Your task to perform on an android device: What is the news today? Image 0: 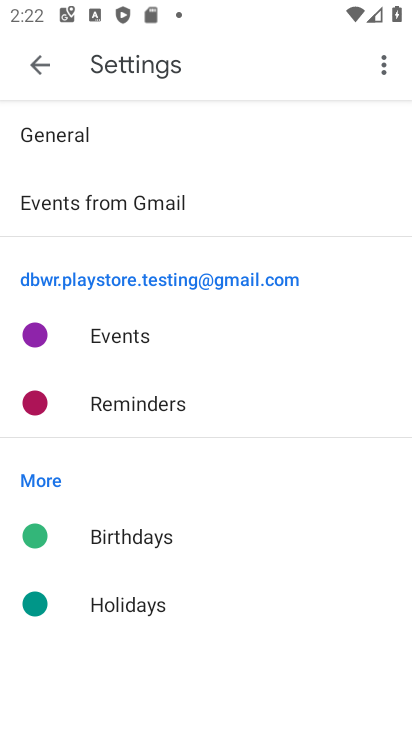
Step 0: drag from (206, 636) to (312, 170)
Your task to perform on an android device: What is the news today? Image 1: 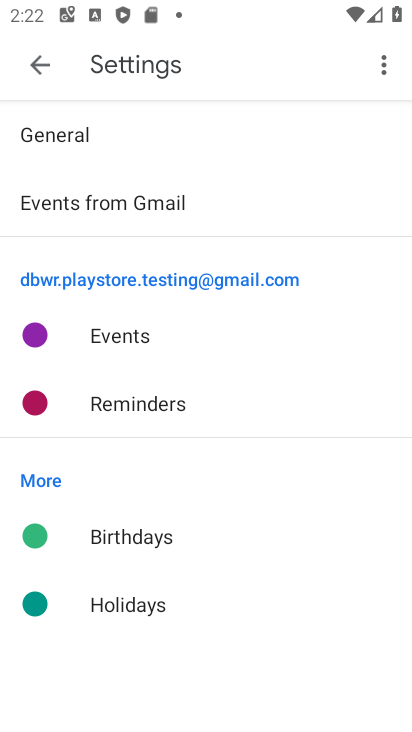
Step 1: drag from (303, 176) to (331, 704)
Your task to perform on an android device: What is the news today? Image 2: 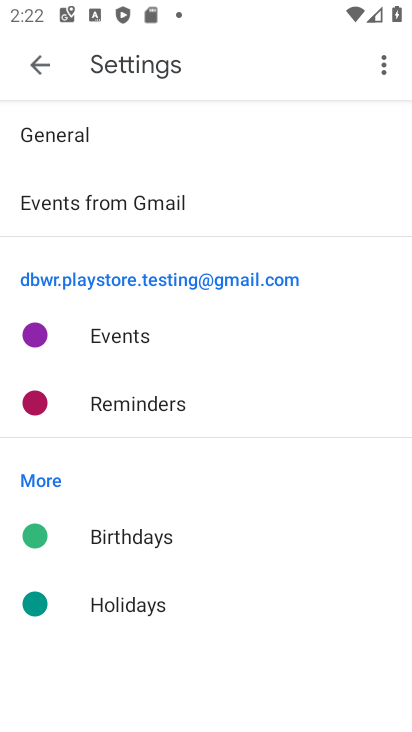
Step 2: press back button
Your task to perform on an android device: What is the news today? Image 3: 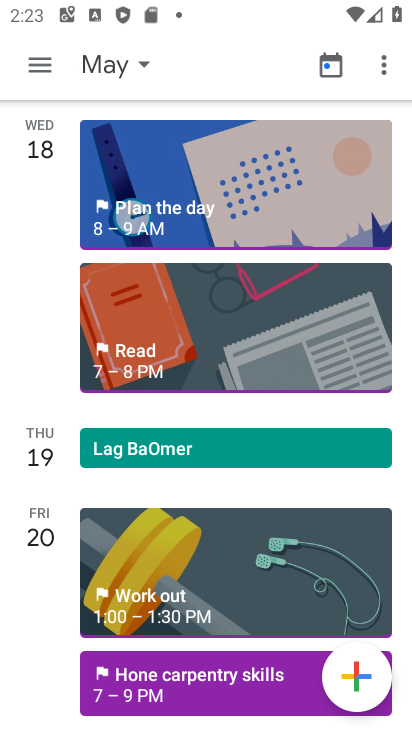
Step 3: press home button
Your task to perform on an android device: What is the news today? Image 4: 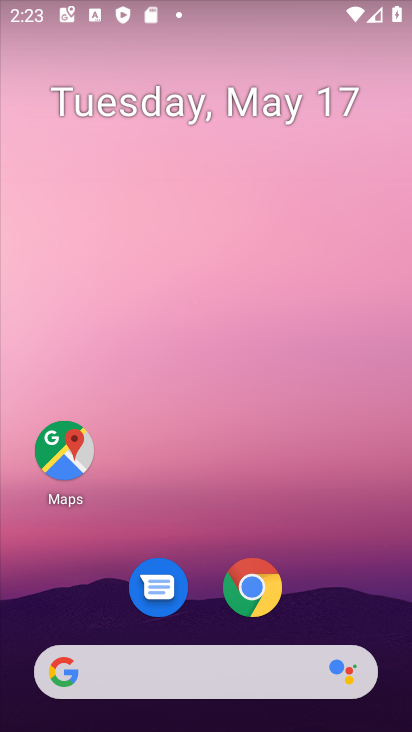
Step 4: drag from (207, 613) to (300, 137)
Your task to perform on an android device: What is the news today? Image 5: 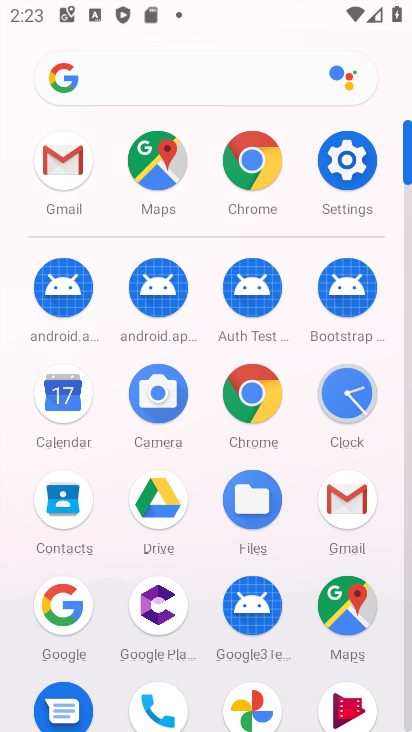
Step 5: click (205, 80)
Your task to perform on an android device: What is the news today? Image 6: 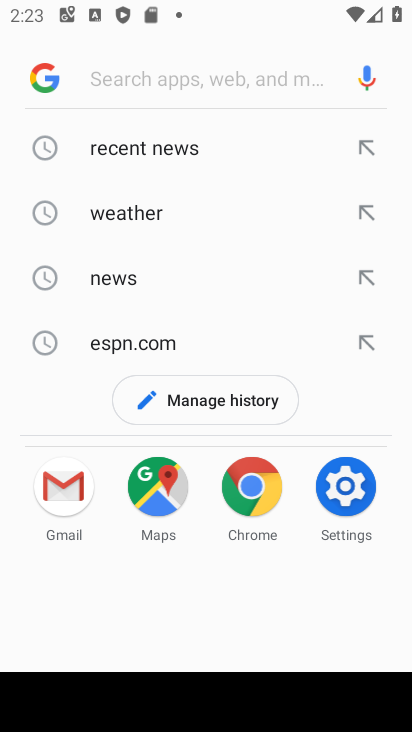
Step 6: click (136, 86)
Your task to perform on an android device: What is the news today? Image 7: 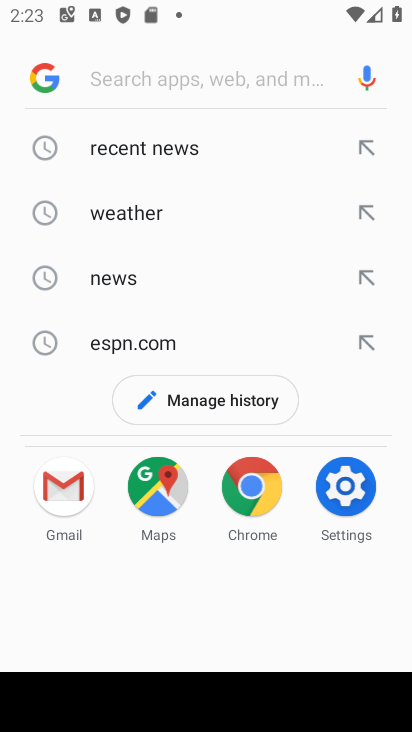
Step 7: type "news today?"
Your task to perform on an android device: What is the news today? Image 8: 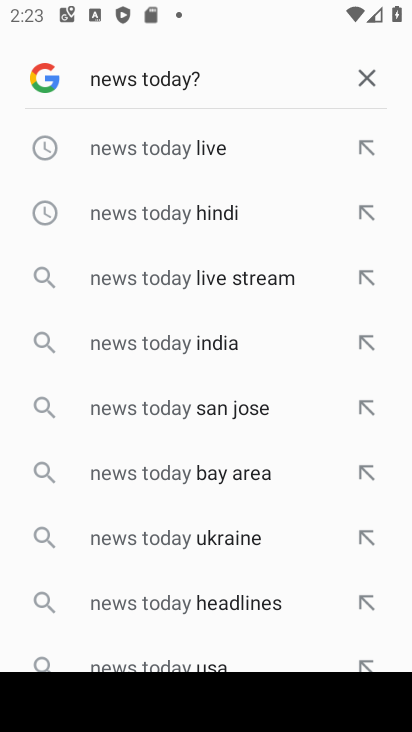
Step 8: drag from (197, 541) to (249, 166)
Your task to perform on an android device: What is the news today? Image 9: 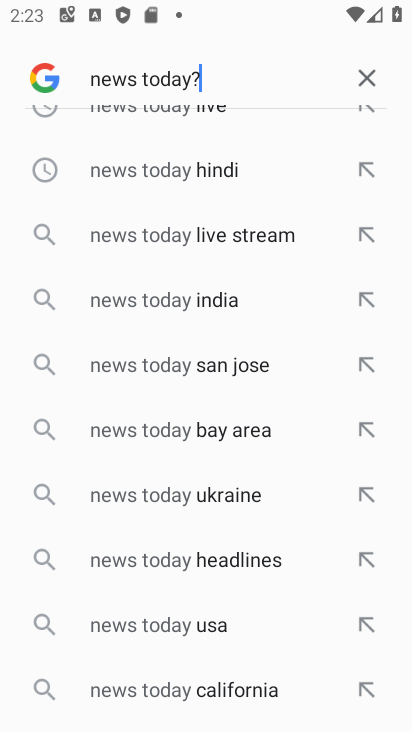
Step 9: drag from (223, 178) to (204, 658)
Your task to perform on an android device: What is the news today? Image 10: 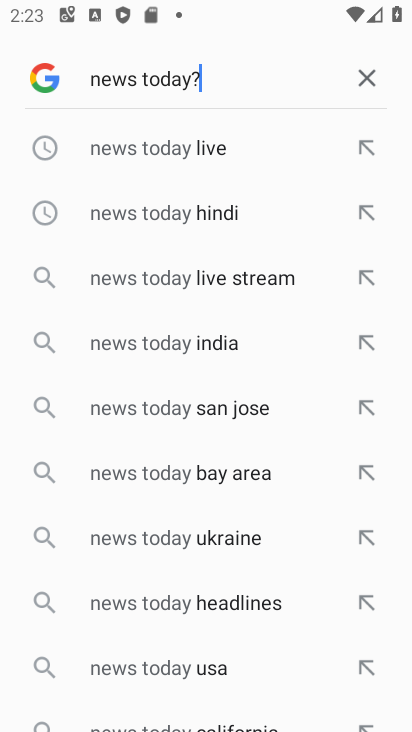
Step 10: click (25, 146)
Your task to perform on an android device: What is the news today? Image 11: 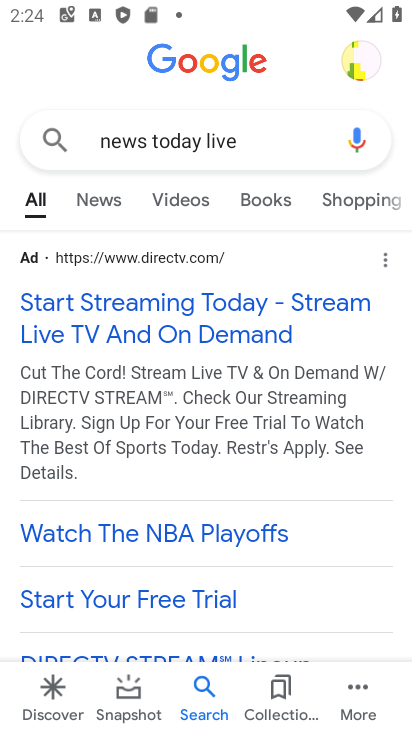
Step 11: task complete